Your task to perform on an android device: check android version Image 0: 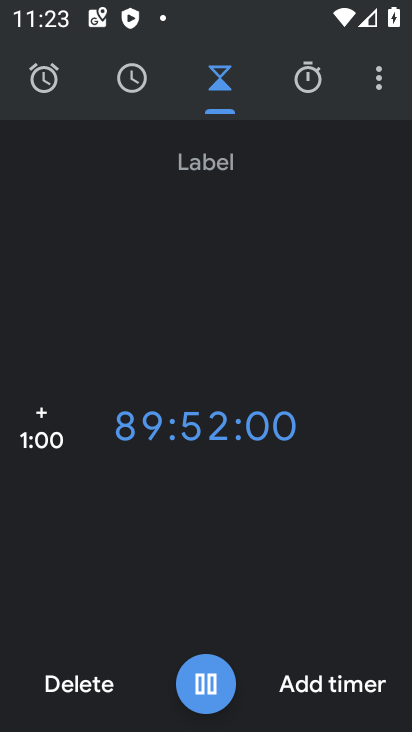
Step 0: press home button
Your task to perform on an android device: check android version Image 1: 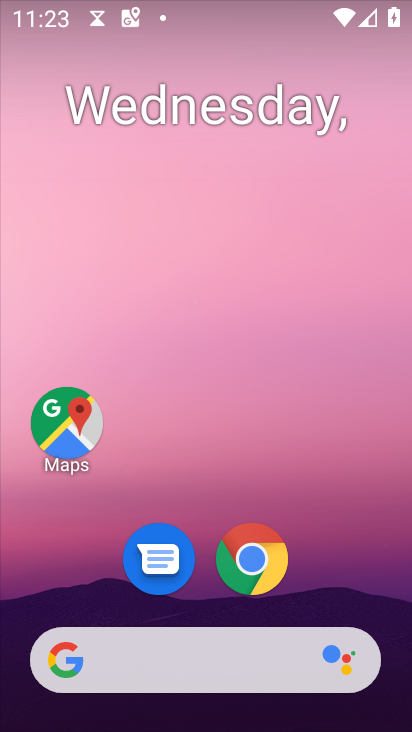
Step 1: drag from (370, 557) to (313, 194)
Your task to perform on an android device: check android version Image 2: 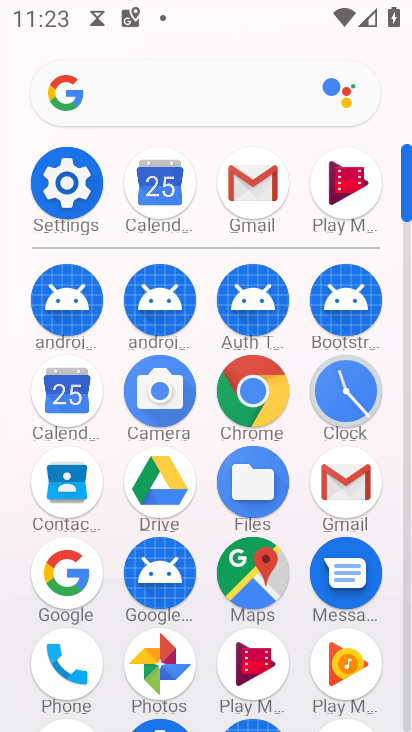
Step 2: click (80, 173)
Your task to perform on an android device: check android version Image 3: 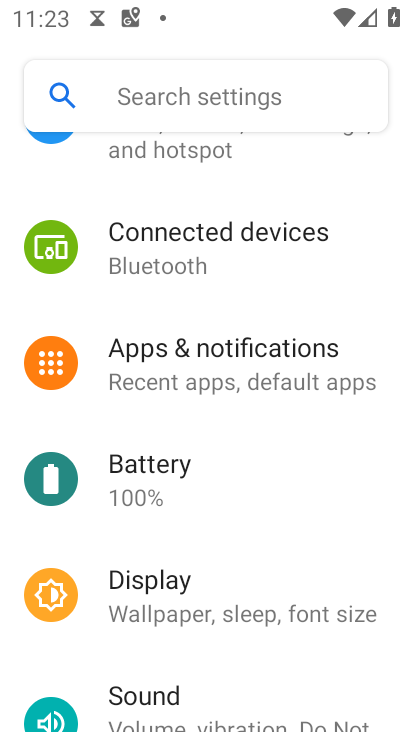
Step 3: drag from (270, 652) to (225, 225)
Your task to perform on an android device: check android version Image 4: 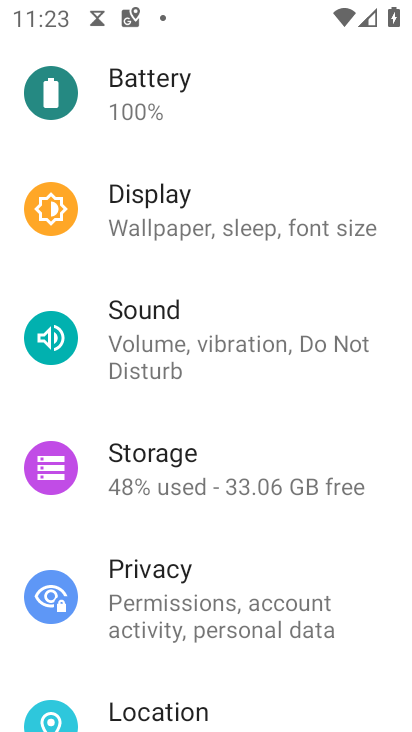
Step 4: drag from (190, 528) to (177, 169)
Your task to perform on an android device: check android version Image 5: 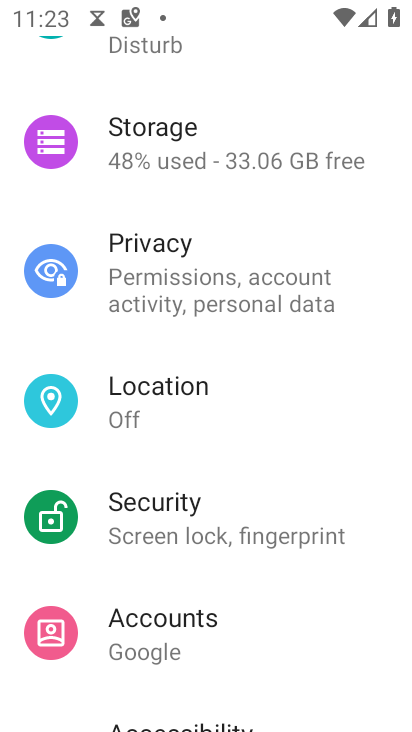
Step 5: drag from (231, 686) to (210, 276)
Your task to perform on an android device: check android version Image 6: 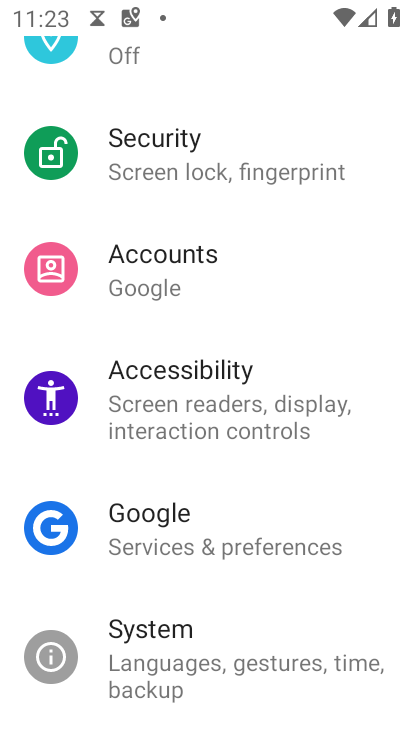
Step 6: drag from (237, 625) to (190, 316)
Your task to perform on an android device: check android version Image 7: 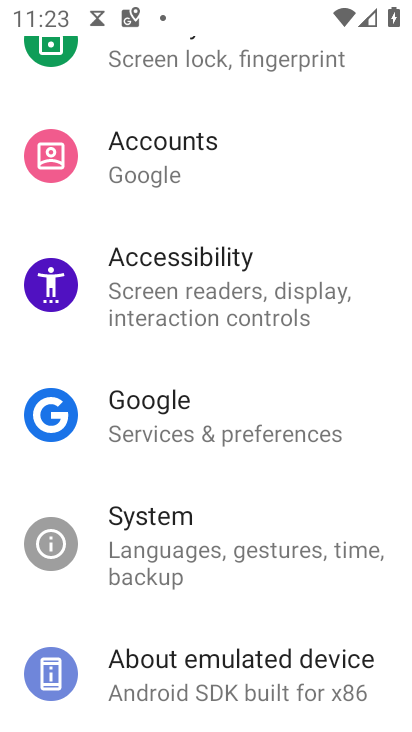
Step 7: click (234, 667)
Your task to perform on an android device: check android version Image 8: 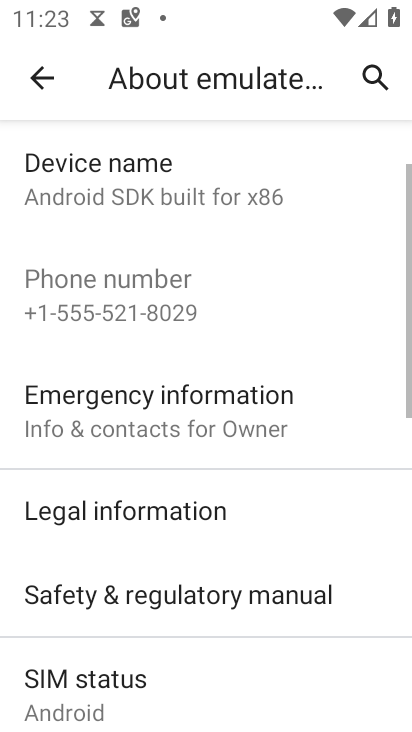
Step 8: drag from (234, 667) to (236, 90)
Your task to perform on an android device: check android version Image 9: 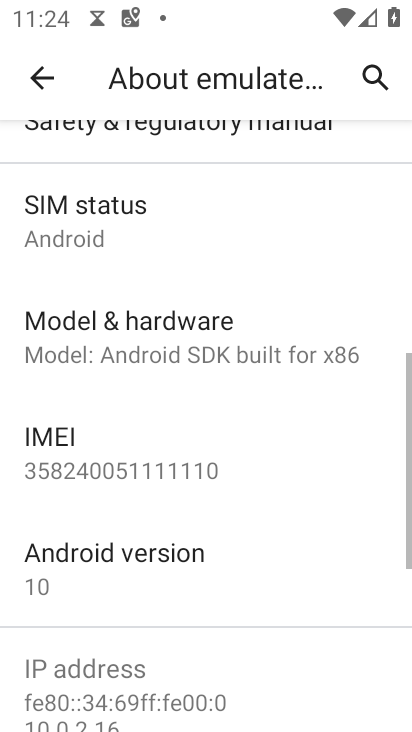
Step 9: click (191, 576)
Your task to perform on an android device: check android version Image 10: 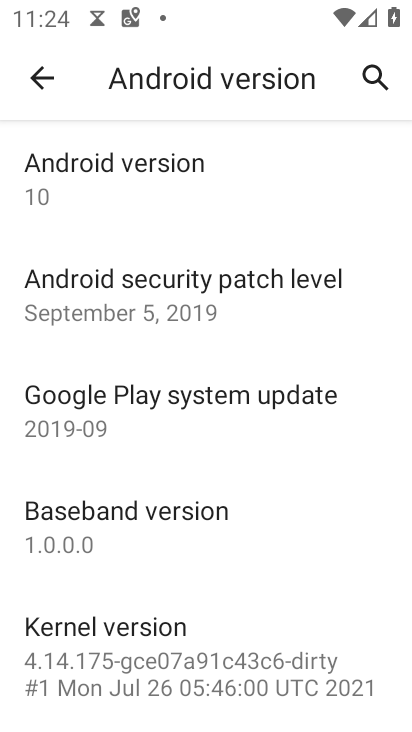
Step 10: task complete